Your task to perform on an android device: set default search engine in the chrome app Image 0: 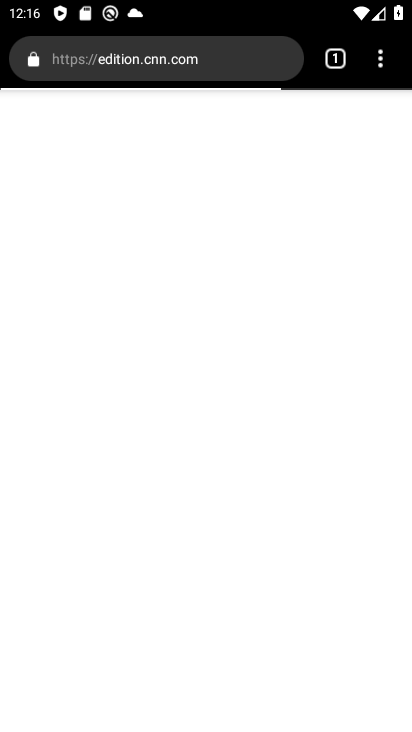
Step 0: press home button
Your task to perform on an android device: set default search engine in the chrome app Image 1: 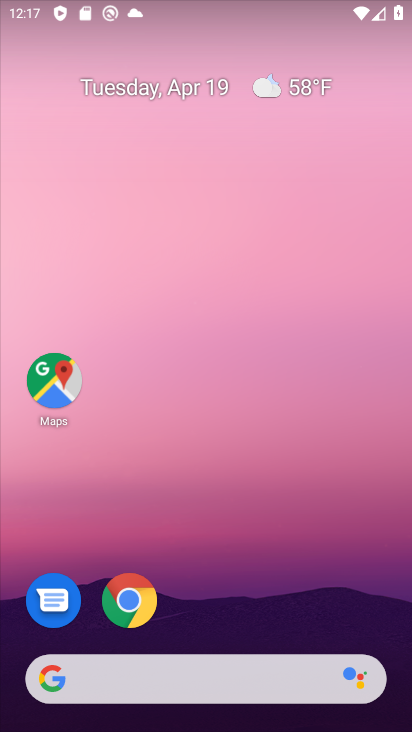
Step 1: drag from (210, 712) to (254, 464)
Your task to perform on an android device: set default search engine in the chrome app Image 2: 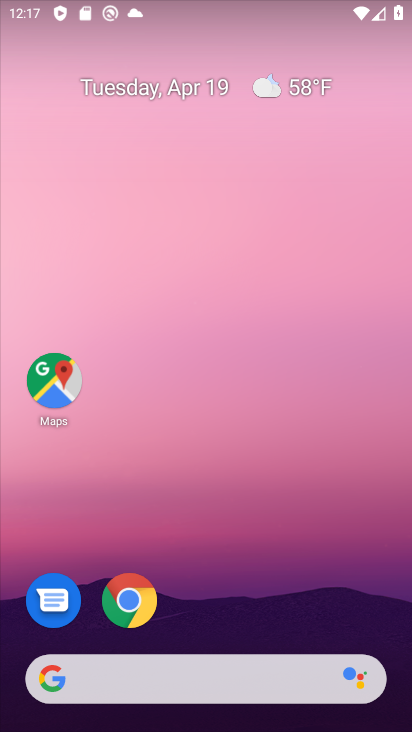
Step 2: drag from (257, 700) to (363, 155)
Your task to perform on an android device: set default search engine in the chrome app Image 3: 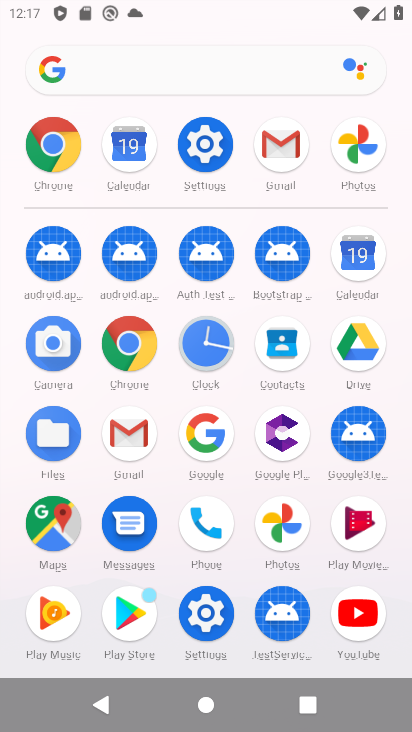
Step 3: click (56, 150)
Your task to perform on an android device: set default search engine in the chrome app Image 4: 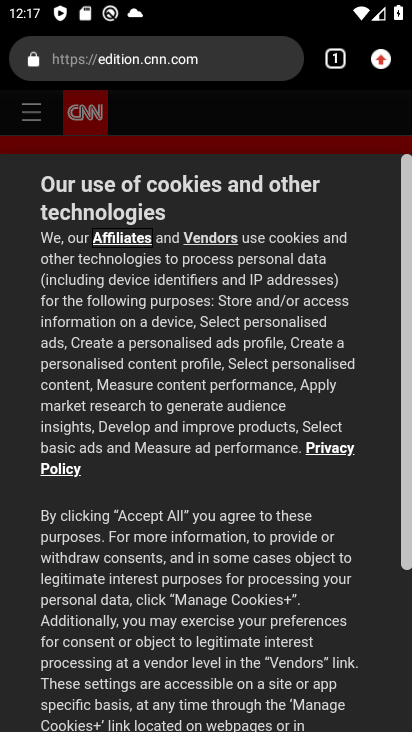
Step 4: click (381, 55)
Your task to perform on an android device: set default search engine in the chrome app Image 5: 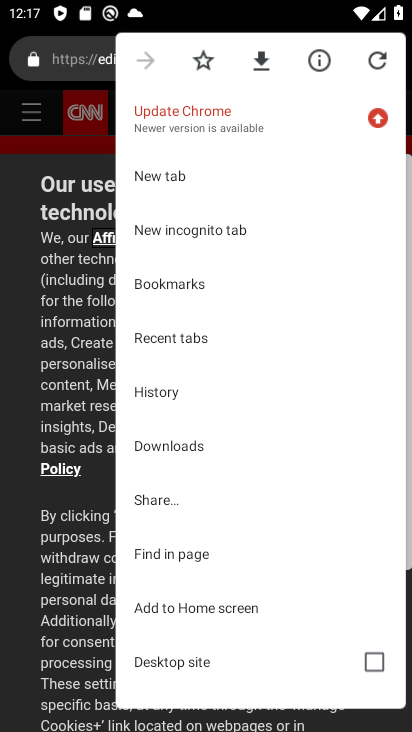
Step 5: drag from (205, 614) to (207, 528)
Your task to perform on an android device: set default search engine in the chrome app Image 6: 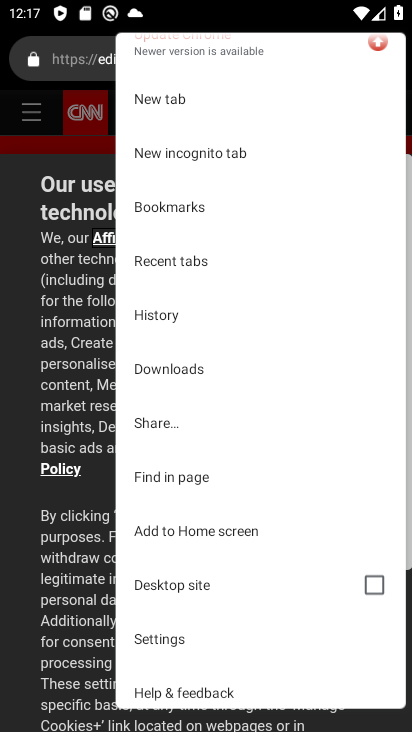
Step 6: click (165, 637)
Your task to perform on an android device: set default search engine in the chrome app Image 7: 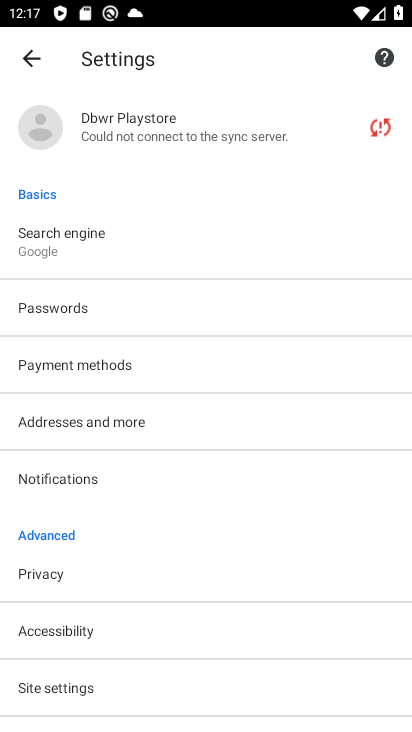
Step 7: click (111, 262)
Your task to perform on an android device: set default search engine in the chrome app Image 8: 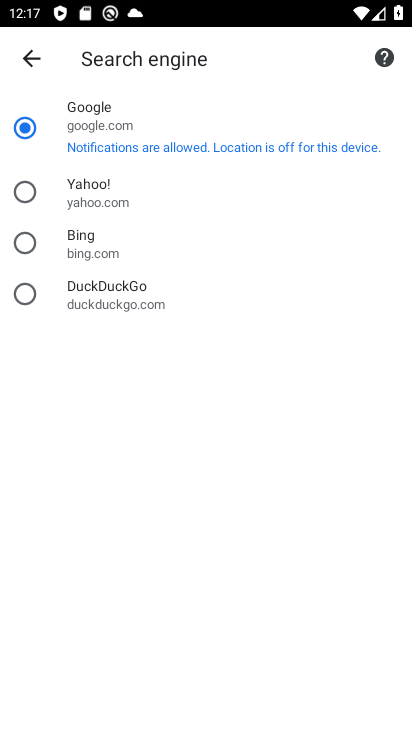
Step 8: task complete